Your task to perform on an android device: Open Yahoo.com Image 0: 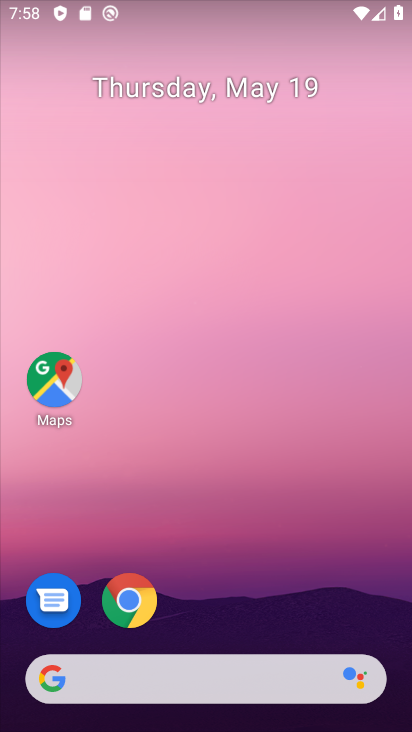
Step 0: click (149, 608)
Your task to perform on an android device: Open Yahoo.com Image 1: 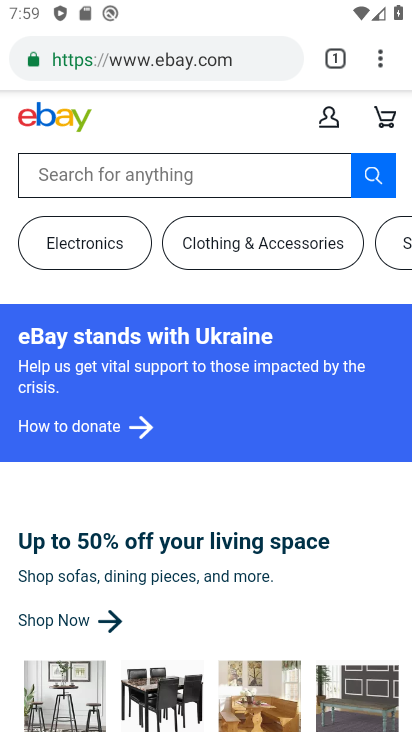
Step 1: click (209, 65)
Your task to perform on an android device: Open Yahoo.com Image 2: 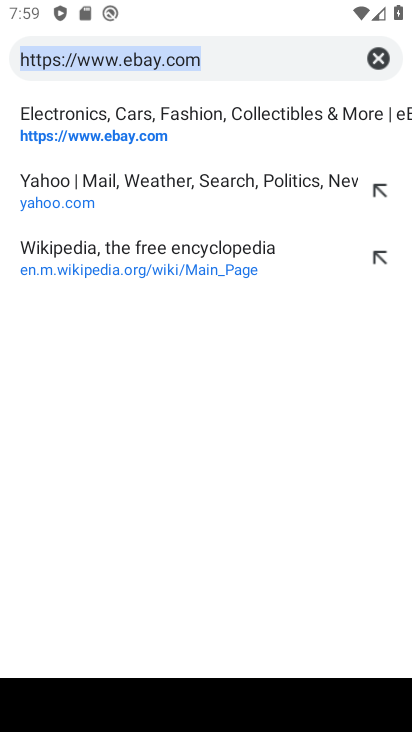
Step 2: type "yahoo.com"
Your task to perform on an android device: Open Yahoo.com Image 3: 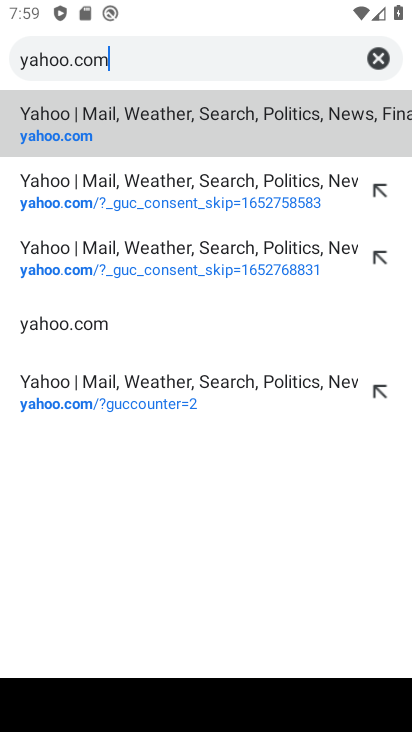
Step 3: click (72, 93)
Your task to perform on an android device: Open Yahoo.com Image 4: 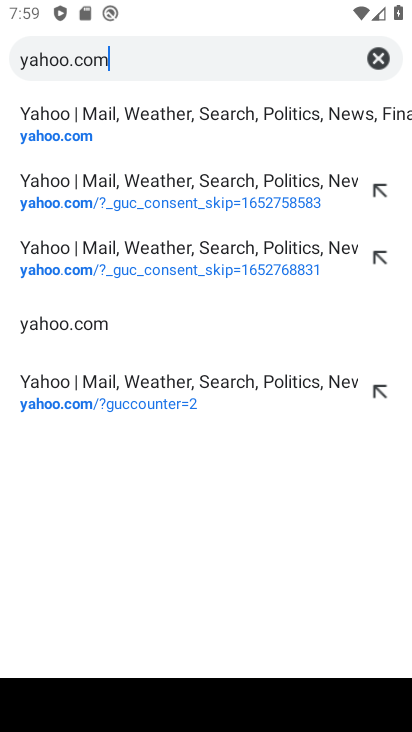
Step 4: click (62, 115)
Your task to perform on an android device: Open Yahoo.com Image 5: 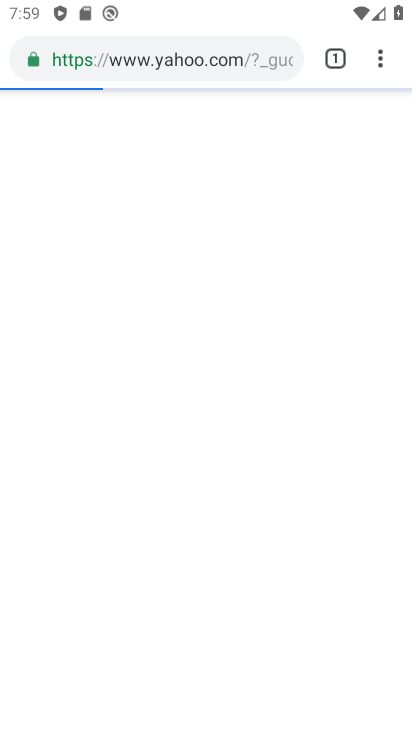
Step 5: task complete